Your task to perform on an android device: Open the phone app and click the voicemail tab. Image 0: 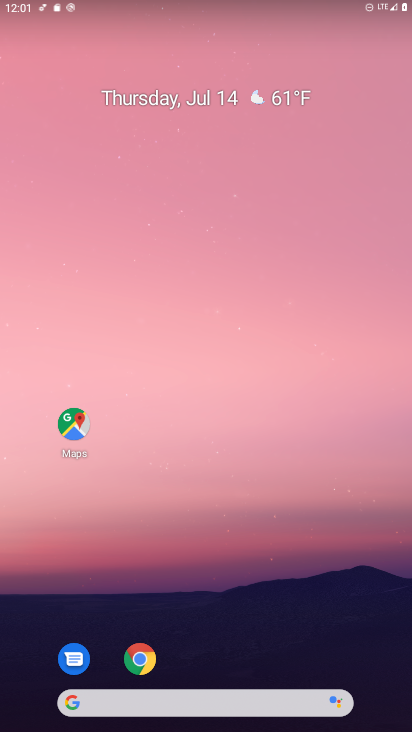
Step 0: drag from (382, 656) to (323, 221)
Your task to perform on an android device: Open the phone app and click the voicemail tab. Image 1: 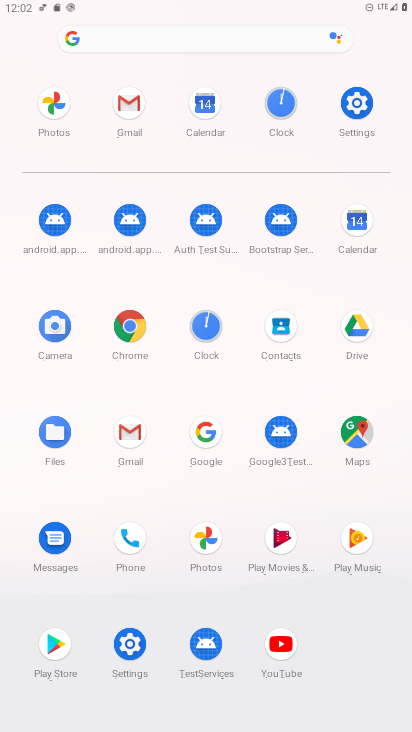
Step 1: click (127, 538)
Your task to perform on an android device: Open the phone app and click the voicemail tab. Image 2: 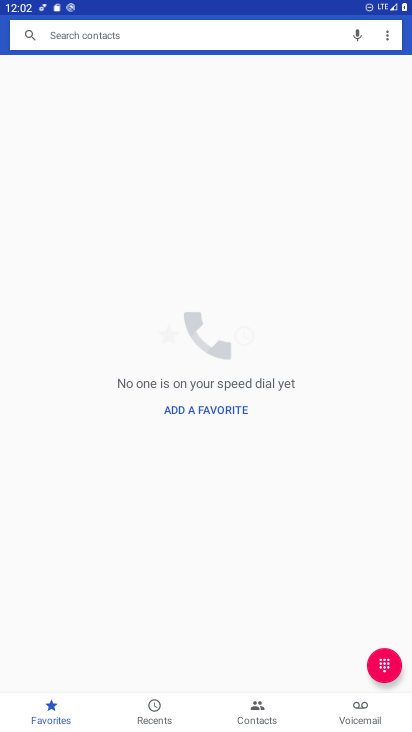
Step 2: click (354, 703)
Your task to perform on an android device: Open the phone app and click the voicemail tab. Image 3: 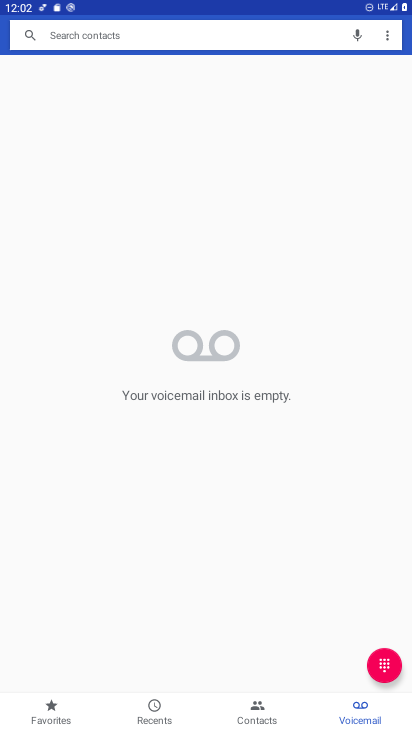
Step 3: task complete